Your task to perform on an android device: Open settings Image 0: 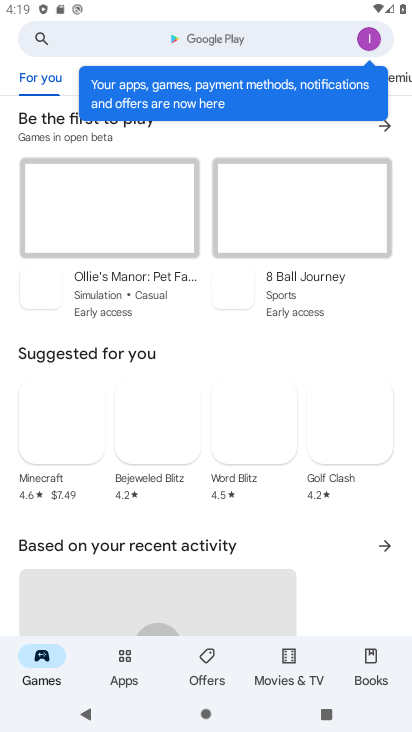
Step 0: press home button
Your task to perform on an android device: Open settings Image 1: 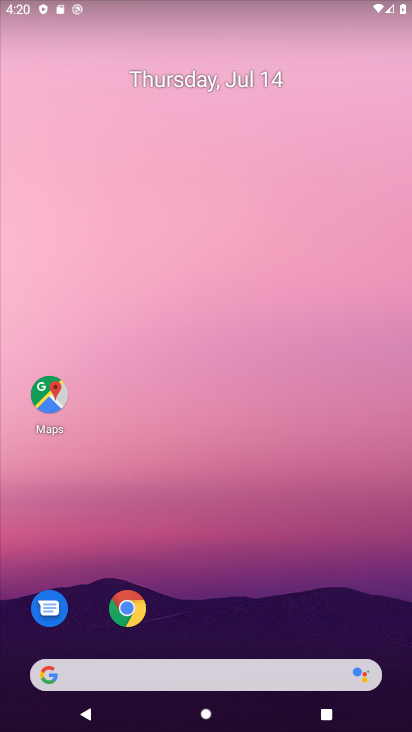
Step 1: drag from (213, 623) to (201, 280)
Your task to perform on an android device: Open settings Image 2: 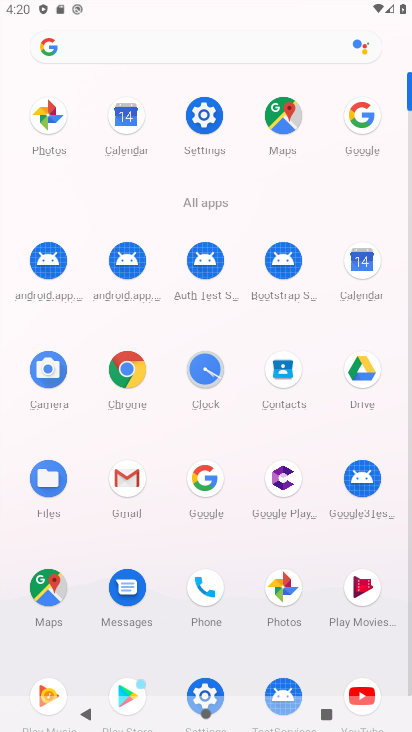
Step 2: click (202, 132)
Your task to perform on an android device: Open settings Image 3: 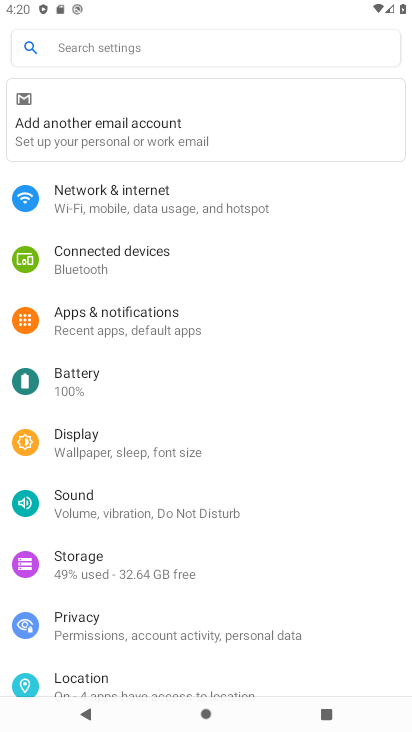
Step 3: task complete